Your task to perform on an android device: Open Reddit.com Image 0: 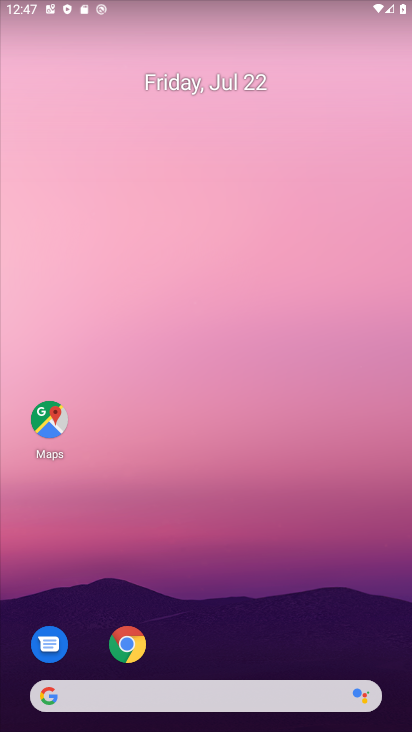
Step 0: press home button
Your task to perform on an android device: Open Reddit.com Image 1: 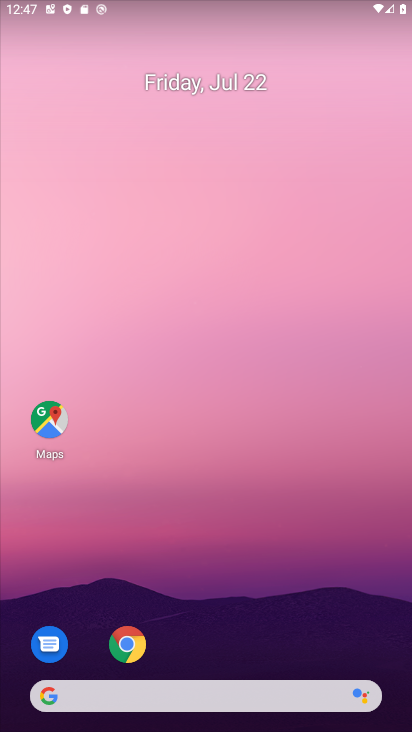
Step 1: drag from (218, 404) to (248, 83)
Your task to perform on an android device: Open Reddit.com Image 2: 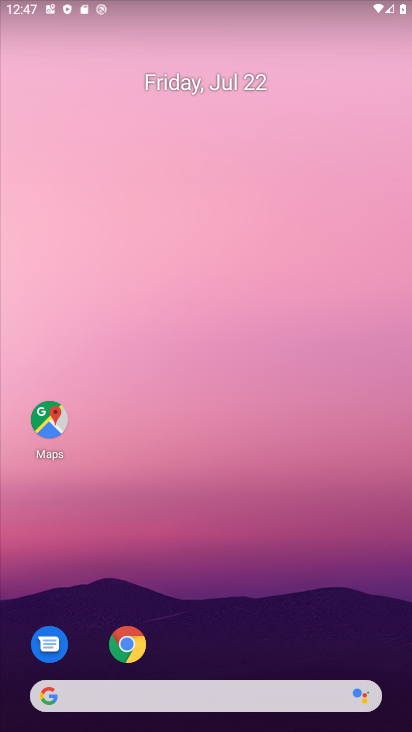
Step 2: click (125, 641)
Your task to perform on an android device: Open Reddit.com Image 3: 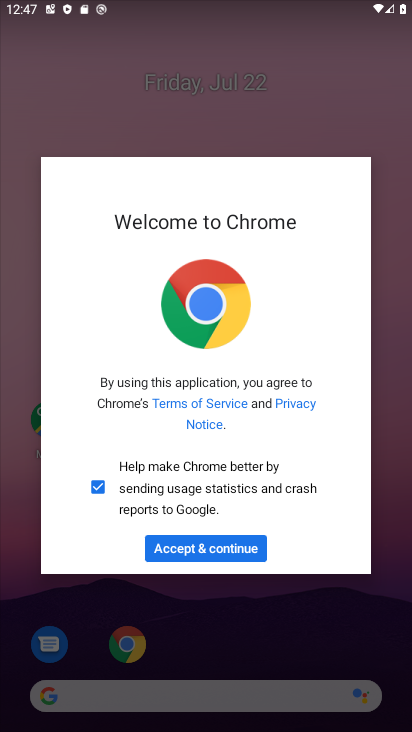
Step 3: click (198, 542)
Your task to perform on an android device: Open Reddit.com Image 4: 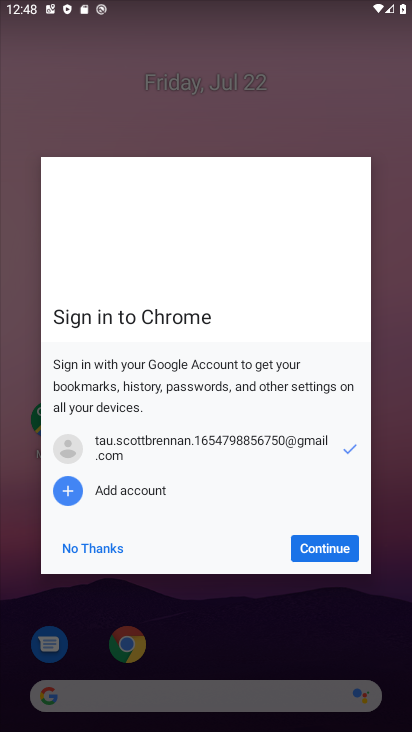
Step 4: click (326, 544)
Your task to perform on an android device: Open Reddit.com Image 5: 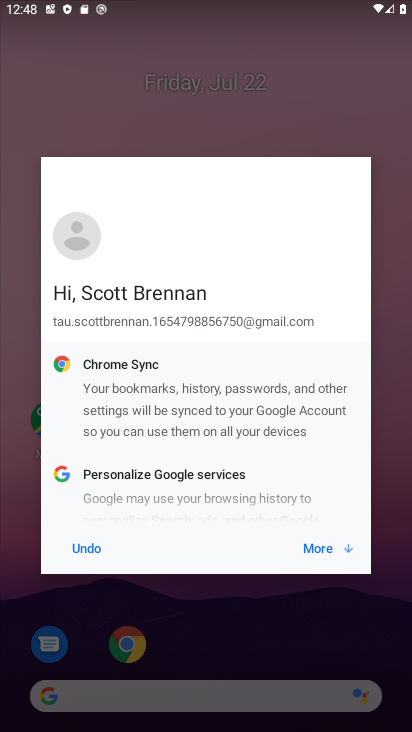
Step 5: click (326, 544)
Your task to perform on an android device: Open Reddit.com Image 6: 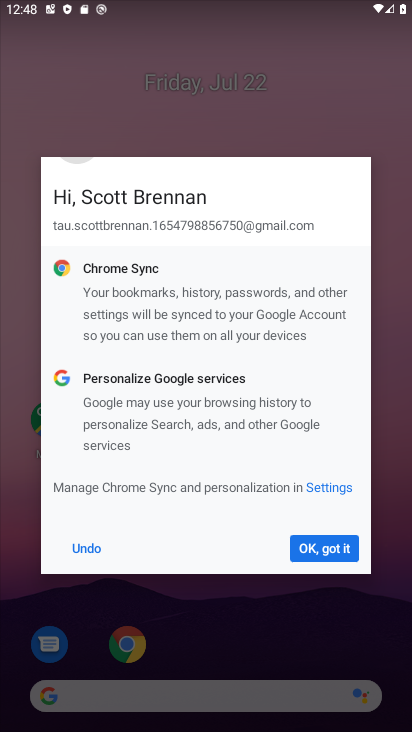
Step 6: click (321, 545)
Your task to perform on an android device: Open Reddit.com Image 7: 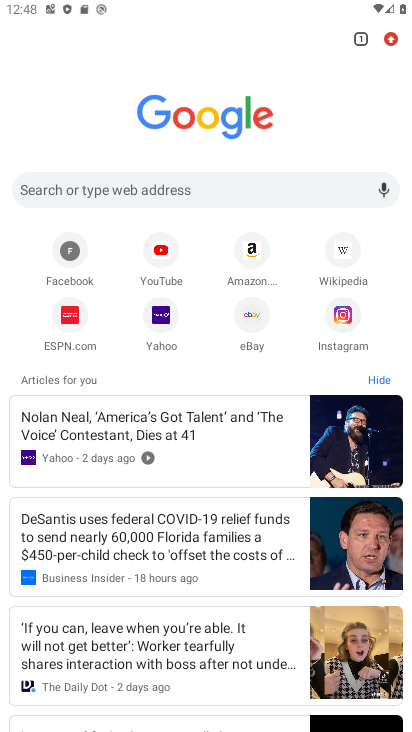
Step 7: click (126, 183)
Your task to perform on an android device: Open Reddit.com Image 8: 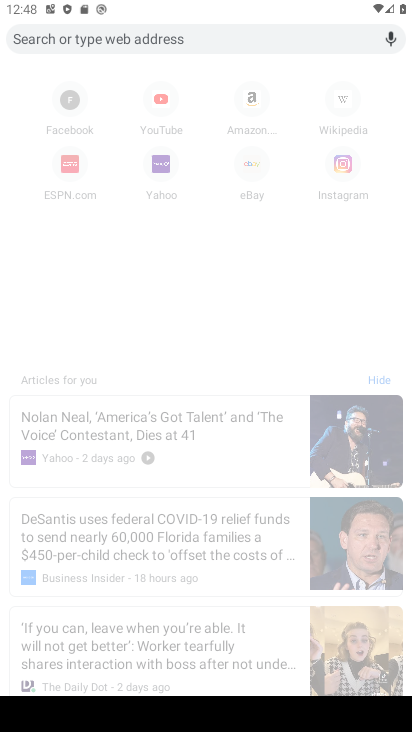
Step 8: type "reddit.com"
Your task to perform on an android device: Open Reddit.com Image 9: 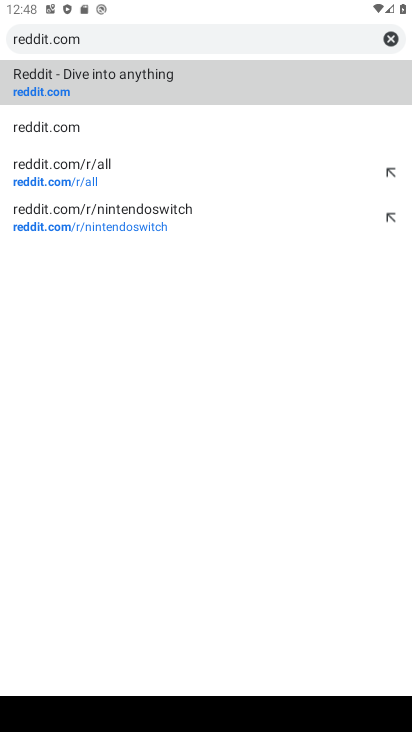
Step 9: click (82, 82)
Your task to perform on an android device: Open Reddit.com Image 10: 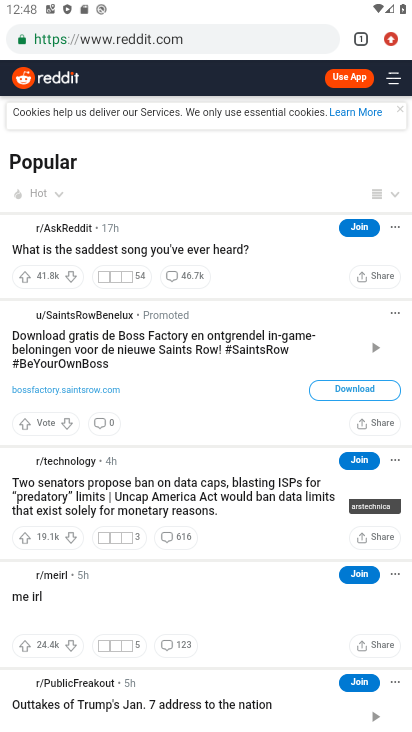
Step 10: task complete